Your task to perform on an android device: Open a new Chrome window Image 0: 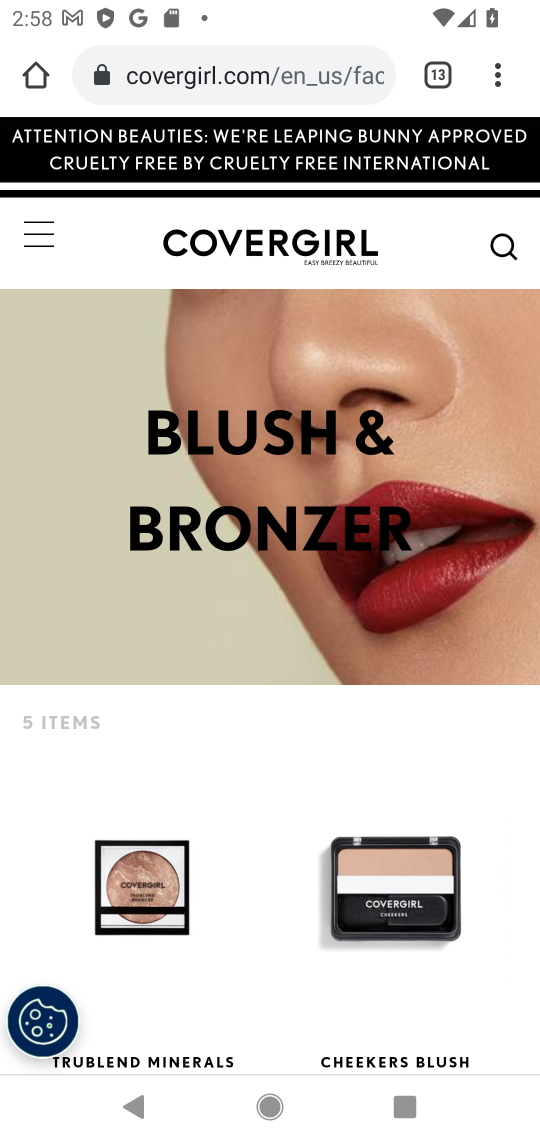
Step 0: press home button
Your task to perform on an android device: Open a new Chrome window Image 1: 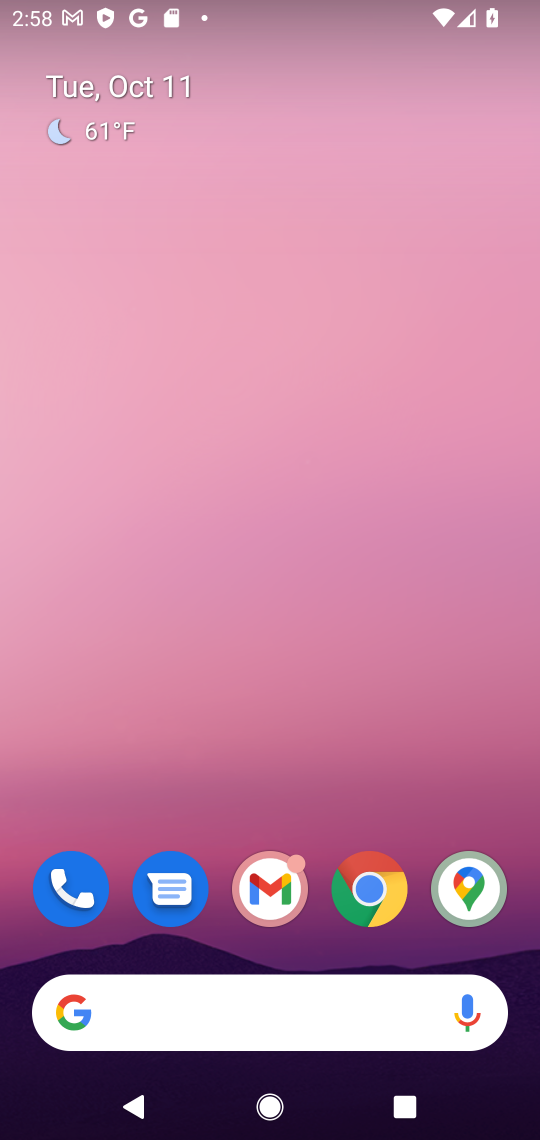
Step 1: drag from (222, 990) to (265, 341)
Your task to perform on an android device: Open a new Chrome window Image 2: 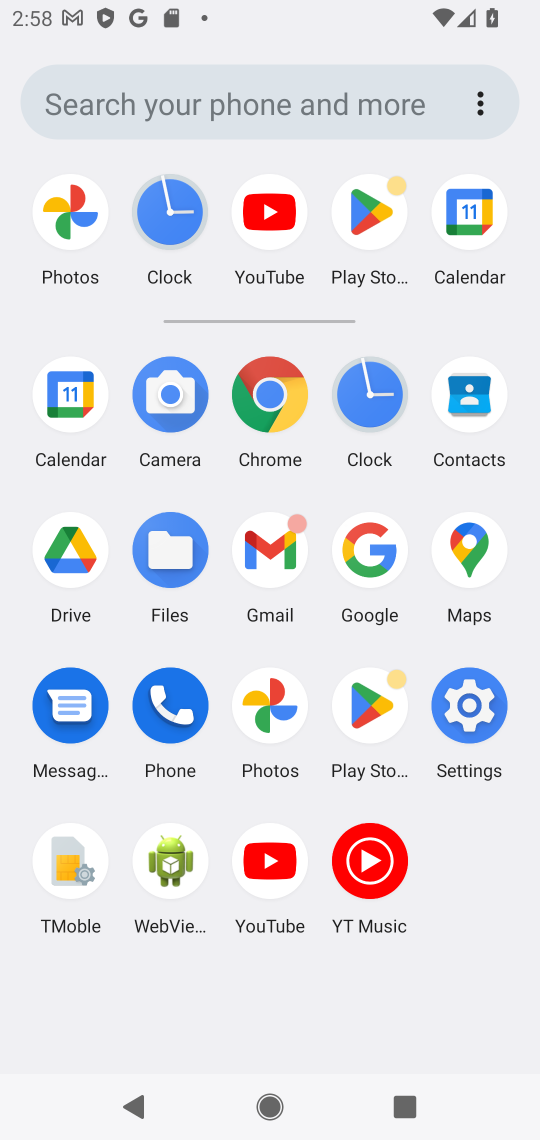
Step 2: click (268, 384)
Your task to perform on an android device: Open a new Chrome window Image 3: 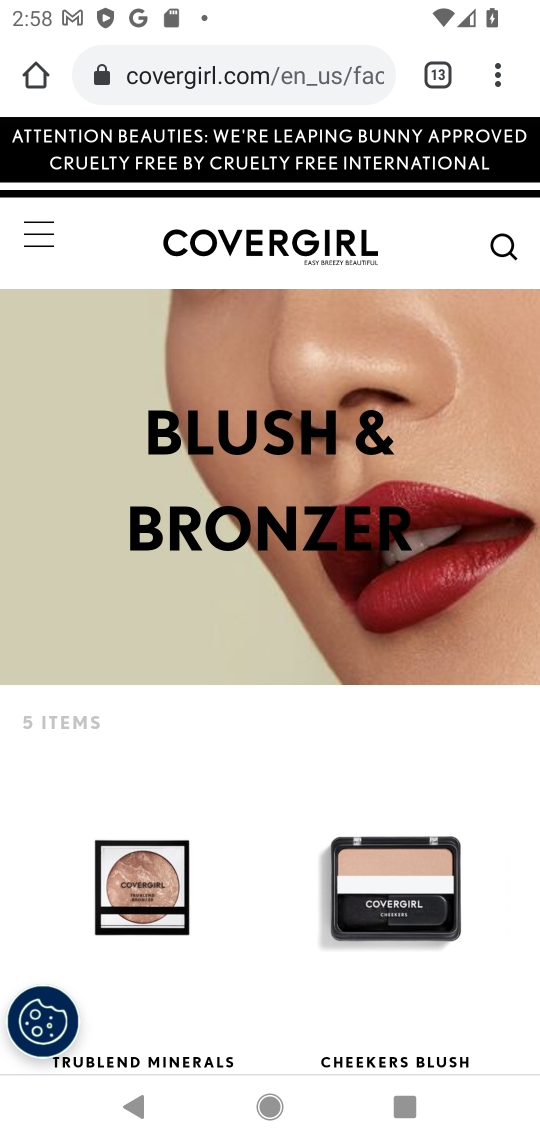
Step 3: click (501, 70)
Your task to perform on an android device: Open a new Chrome window Image 4: 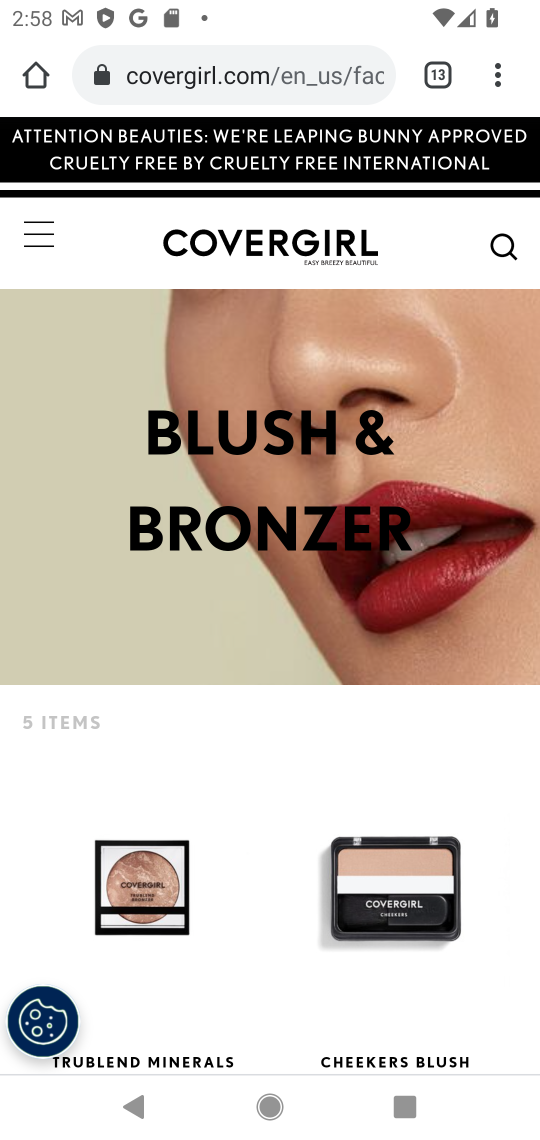
Step 4: click (501, 81)
Your task to perform on an android device: Open a new Chrome window Image 5: 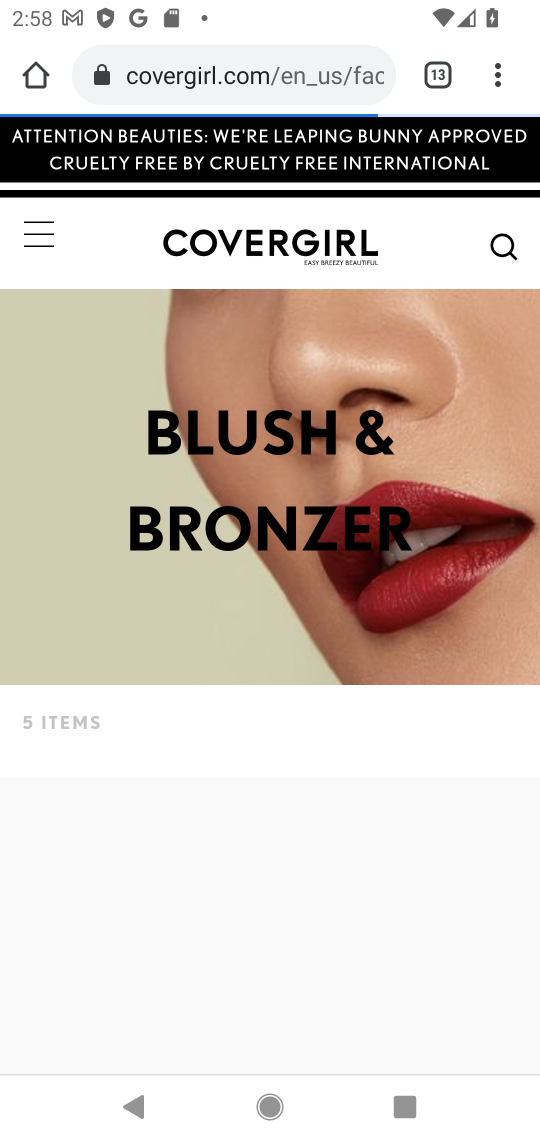
Step 5: click (501, 81)
Your task to perform on an android device: Open a new Chrome window Image 6: 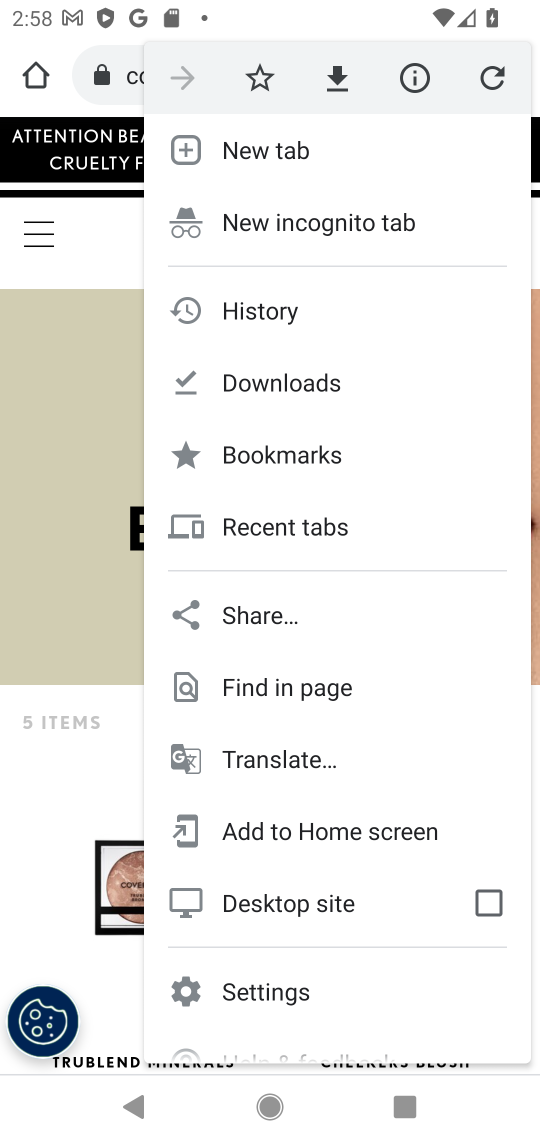
Step 6: click (277, 157)
Your task to perform on an android device: Open a new Chrome window Image 7: 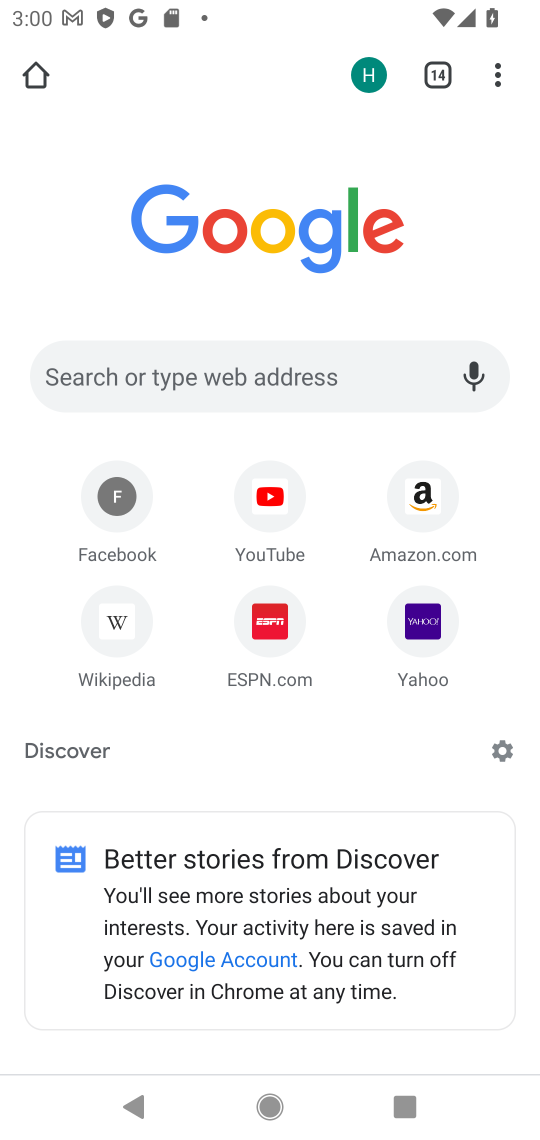
Step 7: task complete